Your task to perform on an android device: turn off improve location accuracy Image 0: 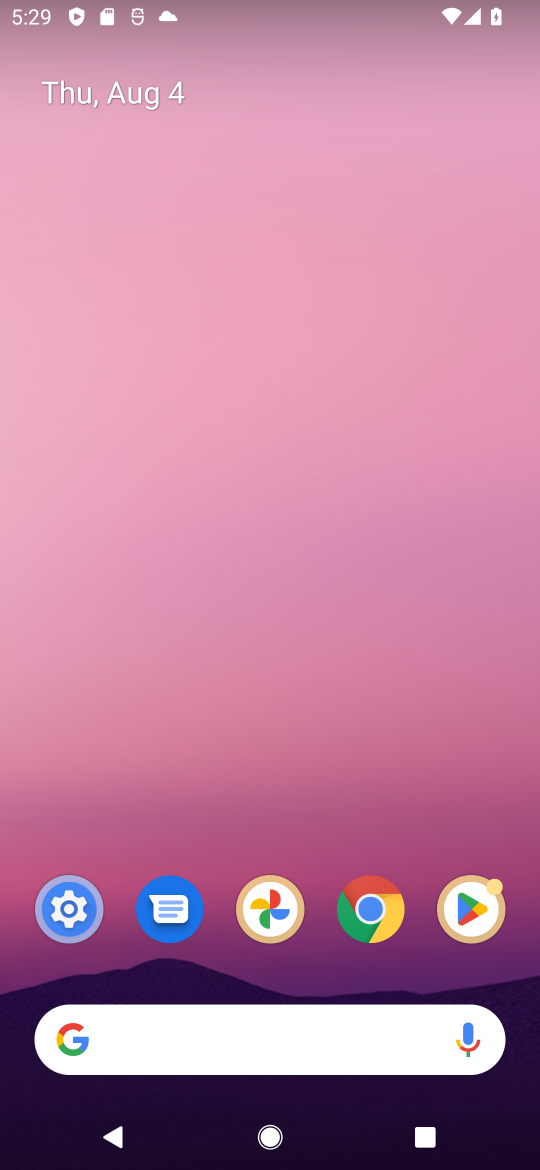
Step 0: drag from (158, 1051) to (344, 340)
Your task to perform on an android device: turn off improve location accuracy Image 1: 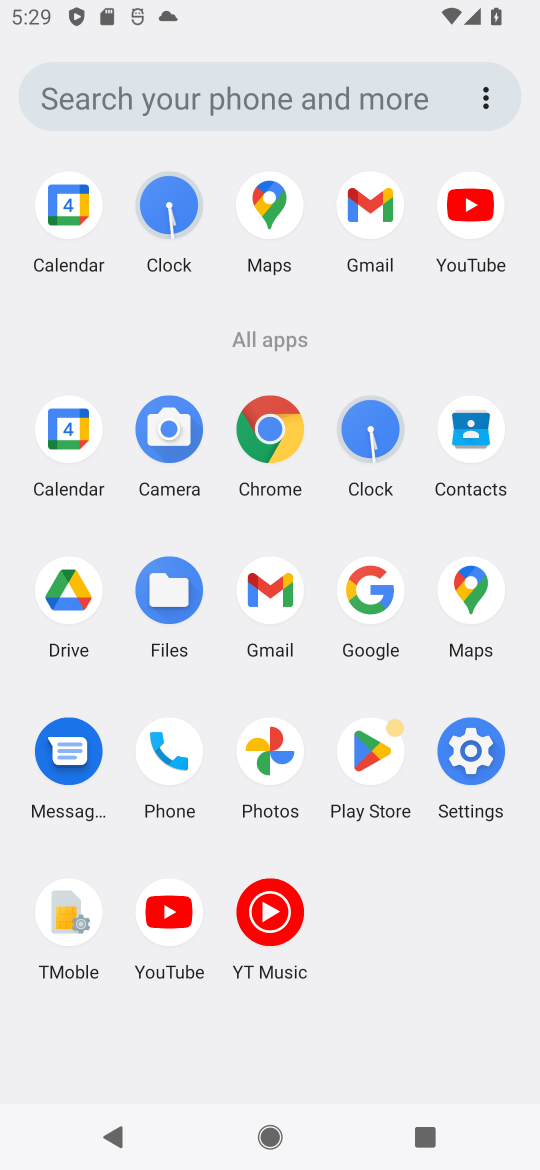
Step 1: click (470, 750)
Your task to perform on an android device: turn off improve location accuracy Image 2: 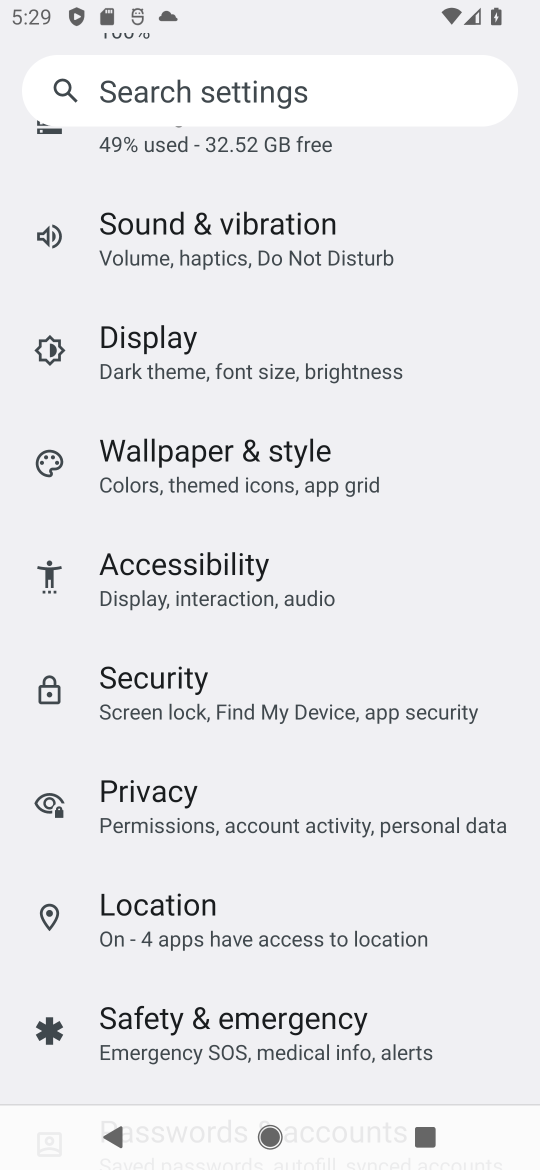
Step 2: drag from (314, 508) to (414, 547)
Your task to perform on an android device: turn off improve location accuracy Image 3: 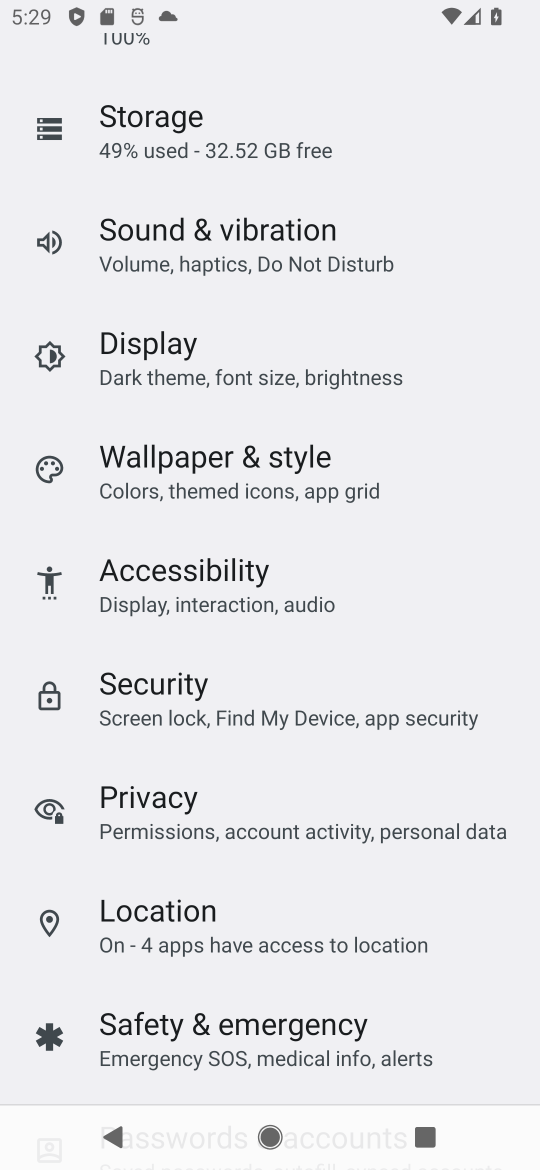
Step 3: click (214, 933)
Your task to perform on an android device: turn off improve location accuracy Image 4: 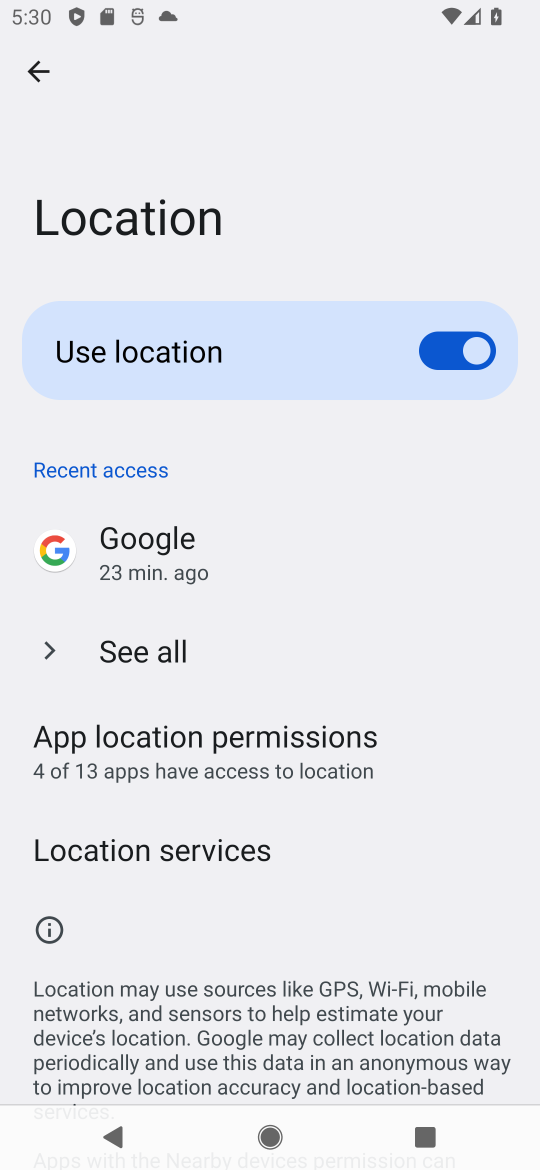
Step 4: click (180, 858)
Your task to perform on an android device: turn off improve location accuracy Image 5: 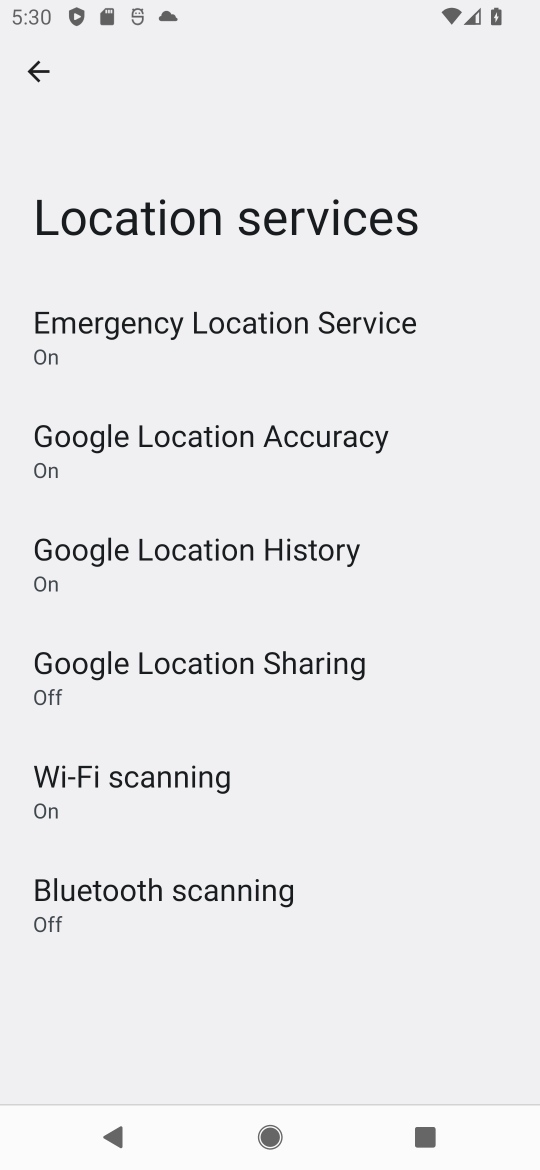
Step 5: click (325, 454)
Your task to perform on an android device: turn off improve location accuracy Image 6: 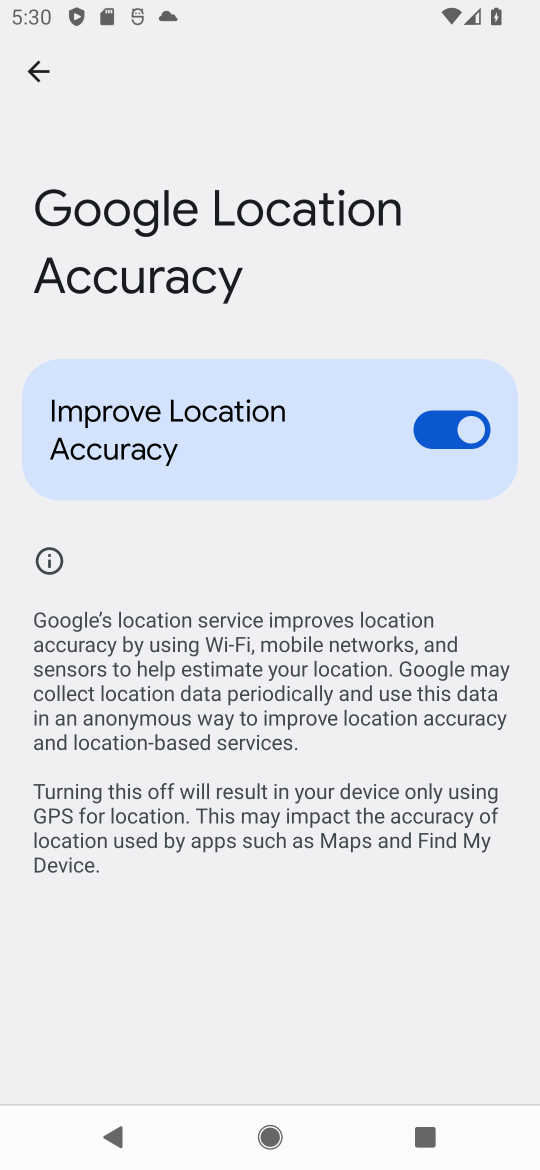
Step 6: click (462, 423)
Your task to perform on an android device: turn off improve location accuracy Image 7: 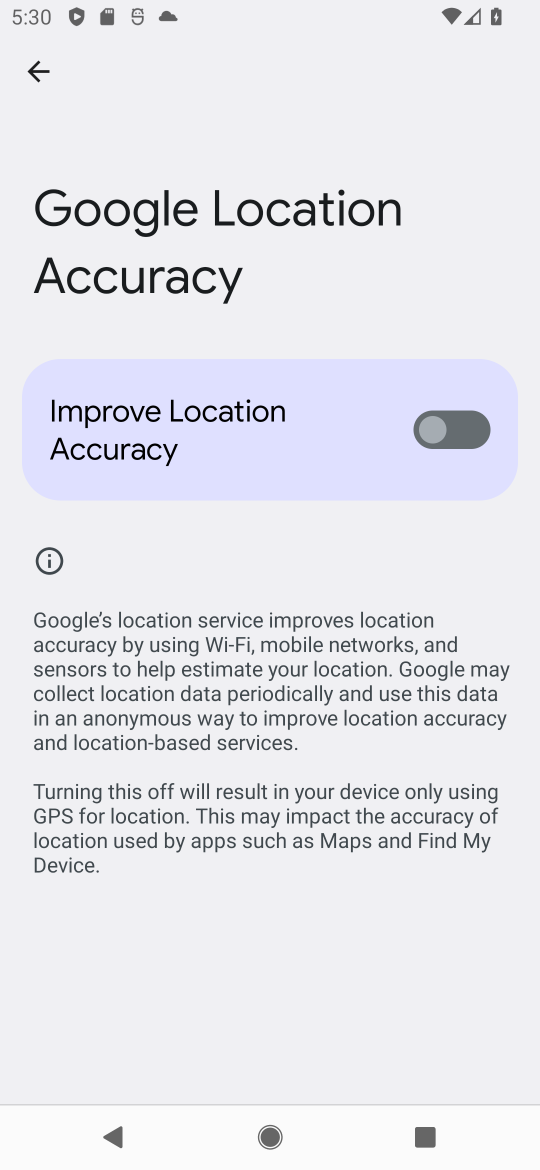
Step 7: task complete